Your task to perform on an android device: Go to Google maps Image 0: 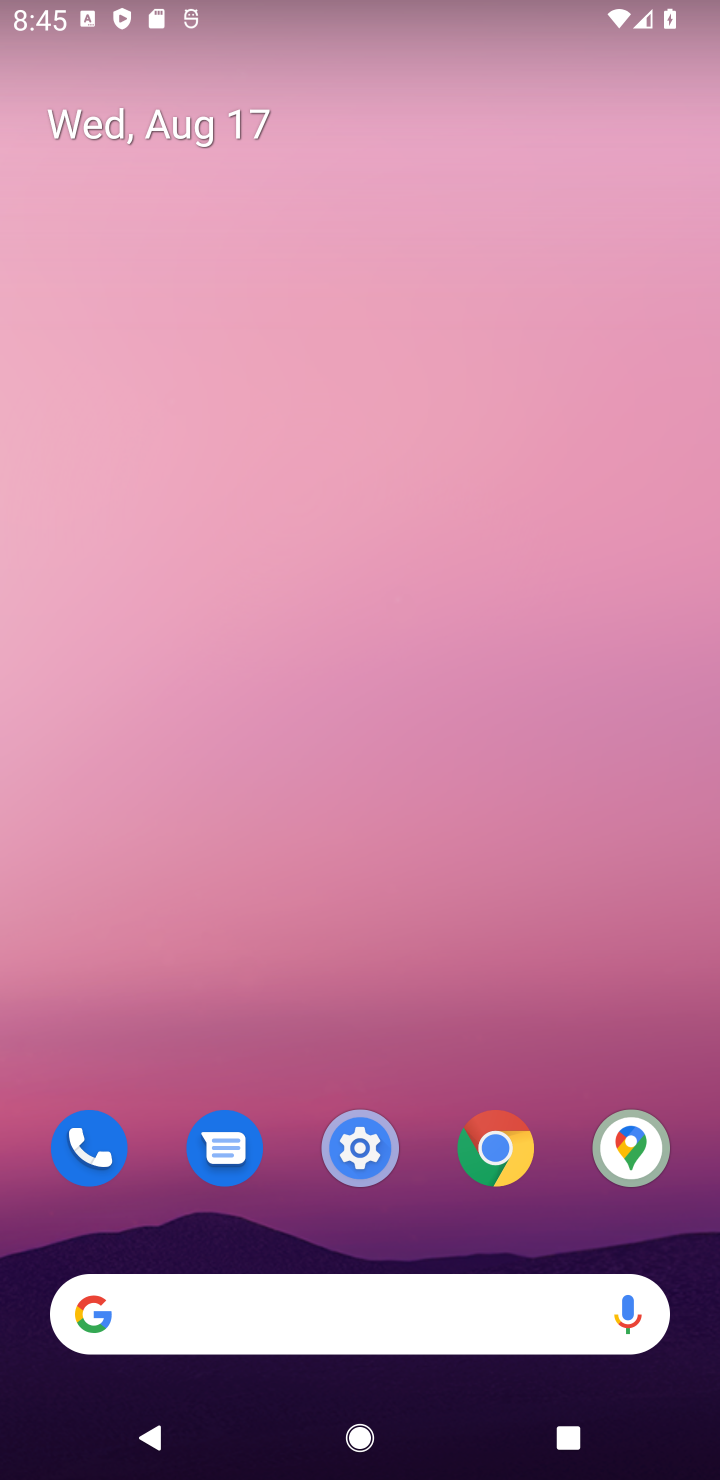
Step 0: click (631, 1145)
Your task to perform on an android device: Go to Google maps Image 1: 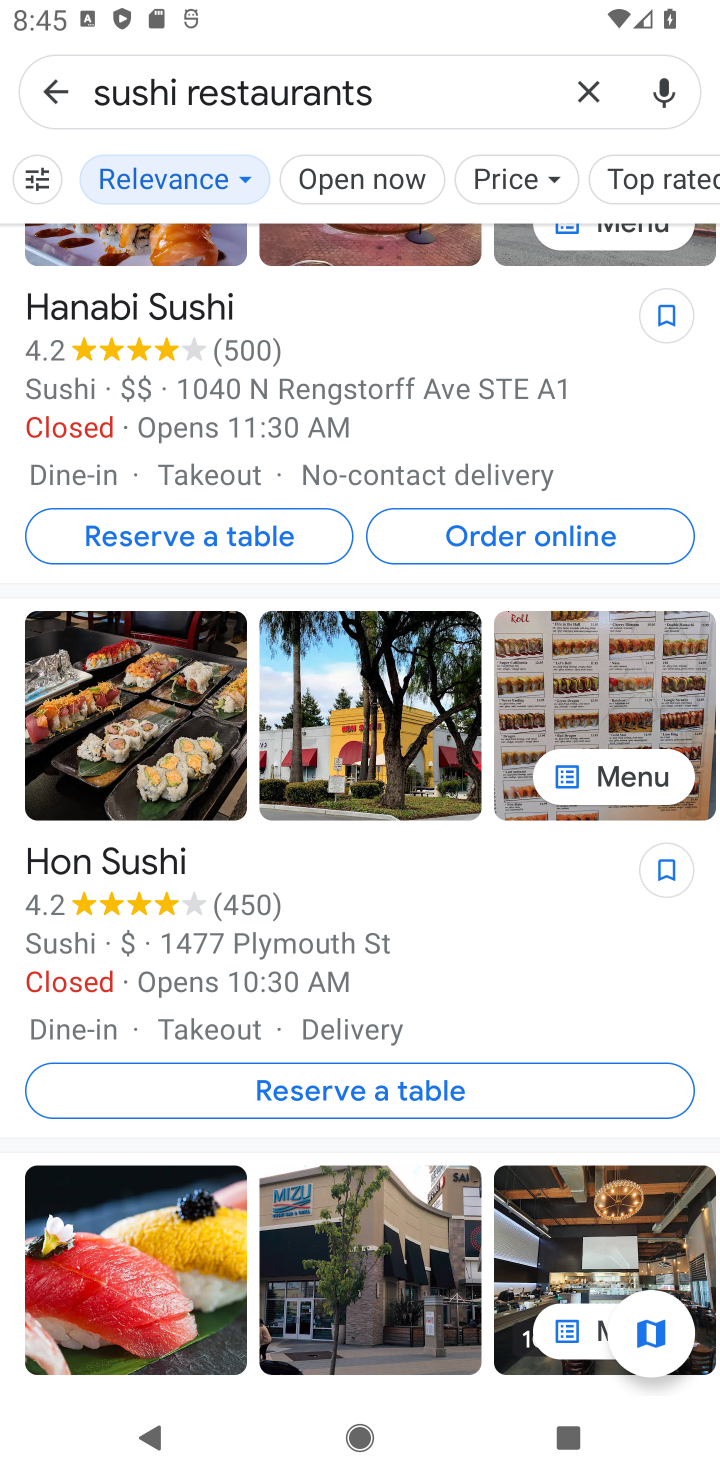
Step 1: click (583, 85)
Your task to perform on an android device: Go to Google maps Image 2: 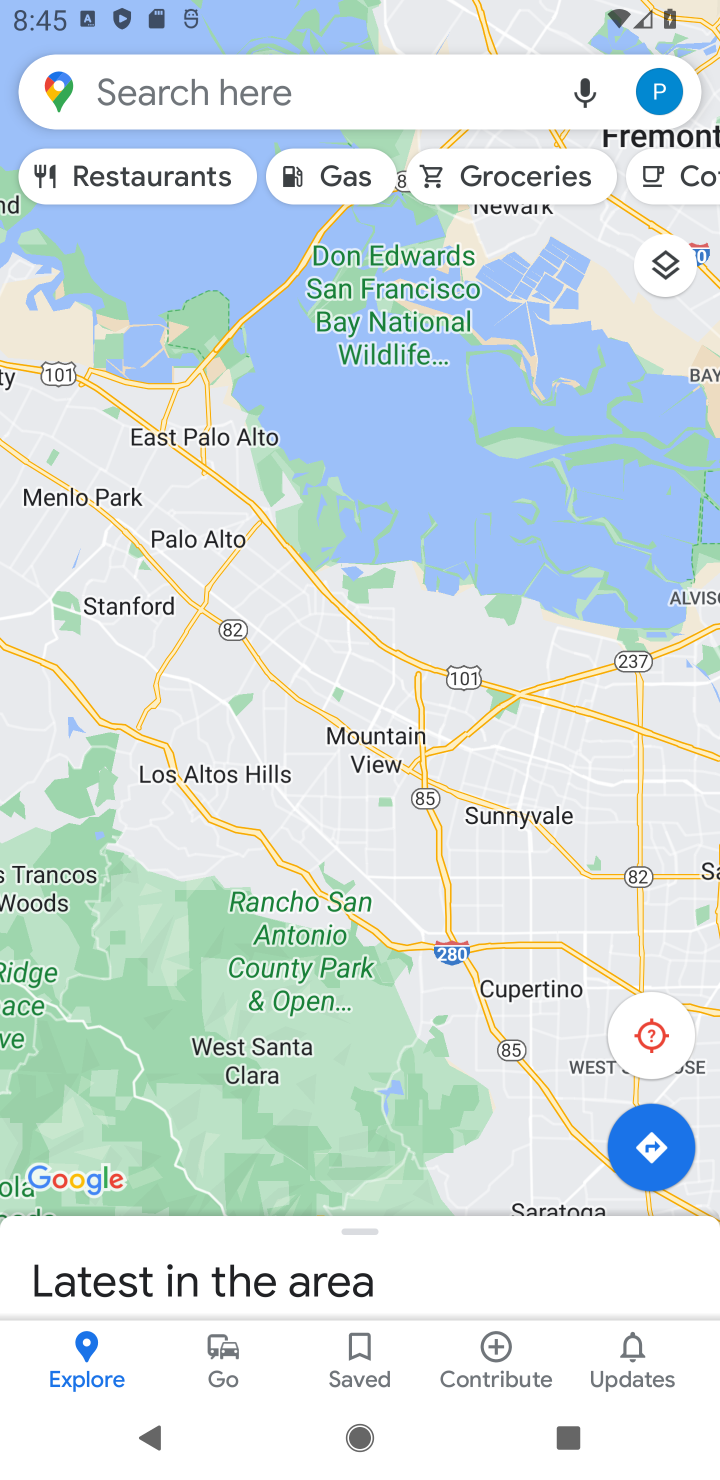
Step 2: task complete